Your task to perform on an android device: Go to display settings Image 0: 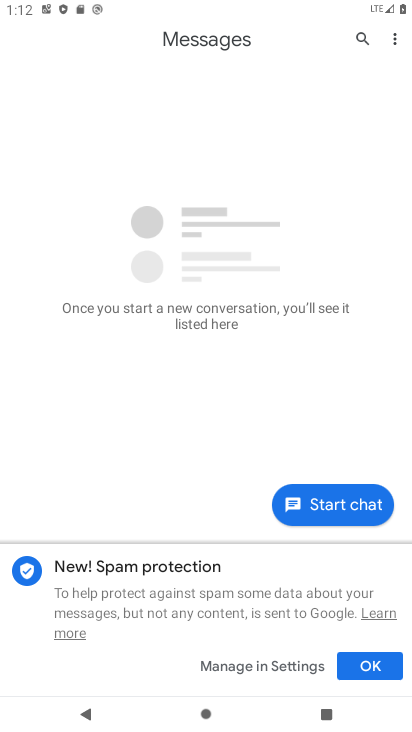
Step 0: press home button
Your task to perform on an android device: Go to display settings Image 1: 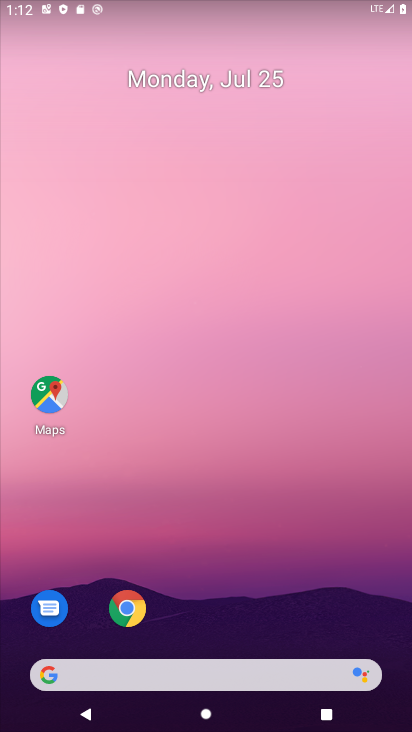
Step 1: drag from (301, 594) to (248, 44)
Your task to perform on an android device: Go to display settings Image 2: 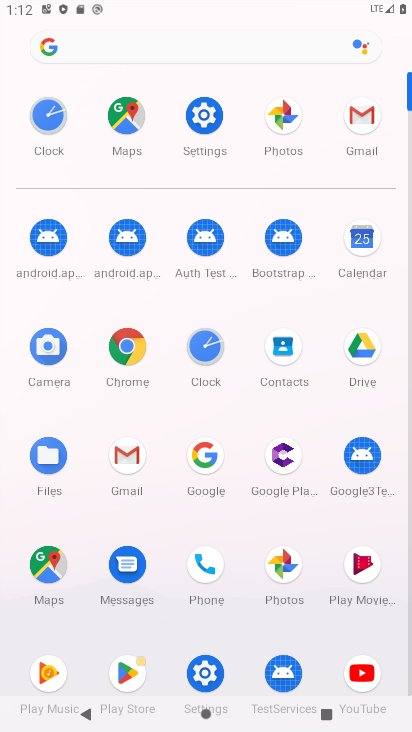
Step 2: click (197, 127)
Your task to perform on an android device: Go to display settings Image 3: 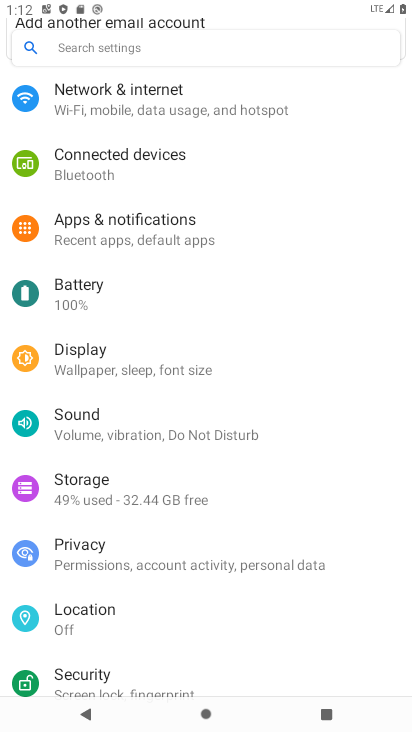
Step 3: click (68, 360)
Your task to perform on an android device: Go to display settings Image 4: 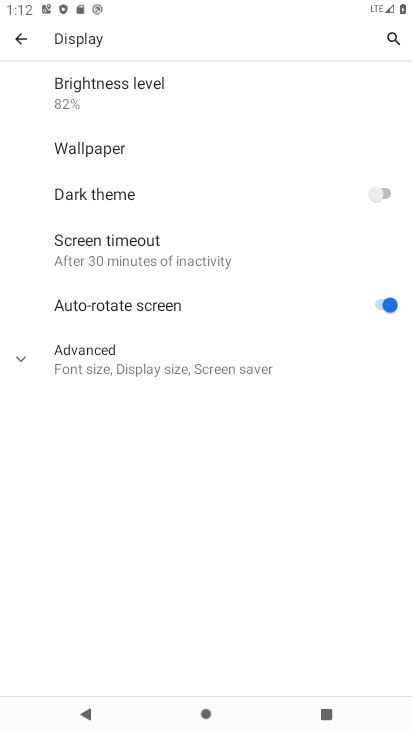
Step 4: task complete